Your task to perform on an android device: change your default location settings in chrome Image 0: 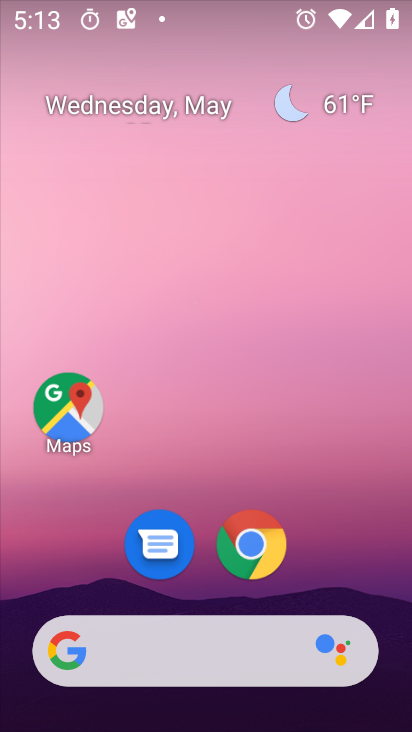
Step 0: click (254, 564)
Your task to perform on an android device: change your default location settings in chrome Image 1: 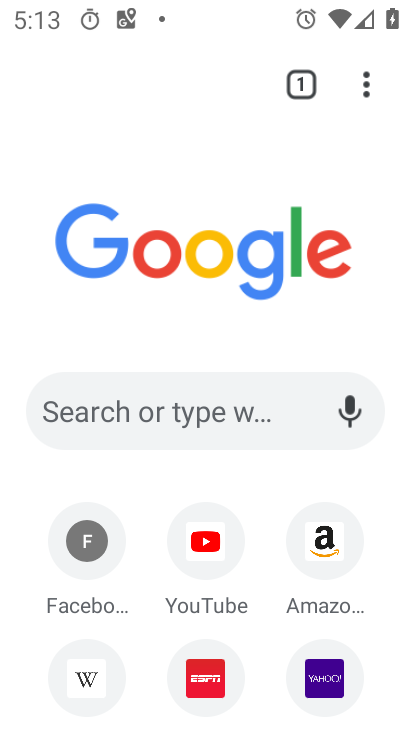
Step 1: click (371, 83)
Your task to perform on an android device: change your default location settings in chrome Image 2: 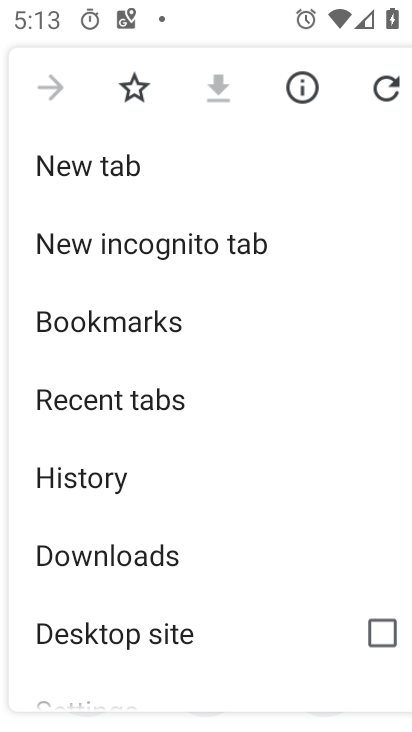
Step 2: drag from (167, 680) to (212, 286)
Your task to perform on an android device: change your default location settings in chrome Image 3: 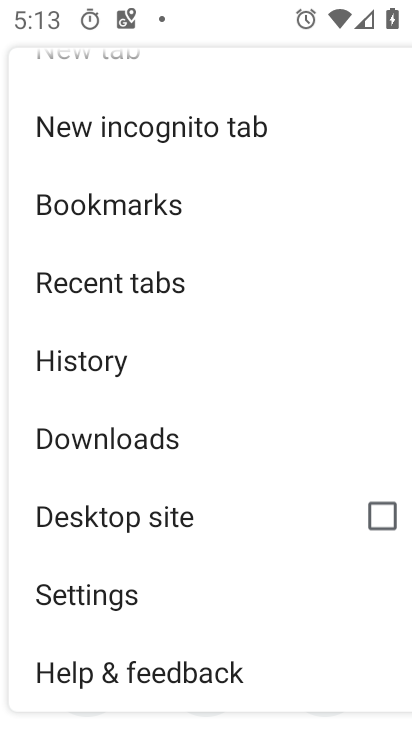
Step 3: click (110, 599)
Your task to perform on an android device: change your default location settings in chrome Image 4: 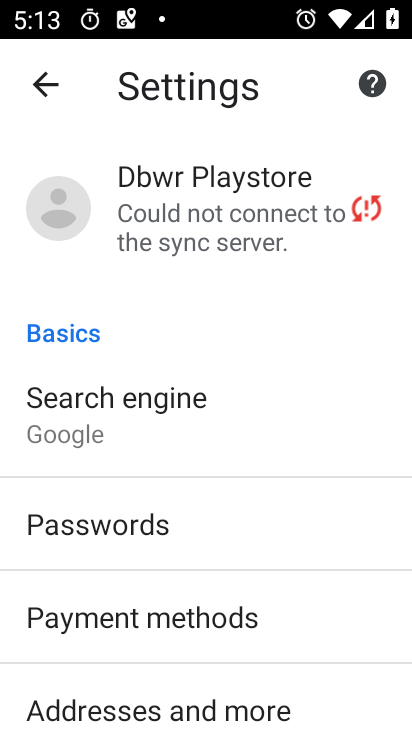
Step 4: drag from (205, 713) to (248, 288)
Your task to perform on an android device: change your default location settings in chrome Image 5: 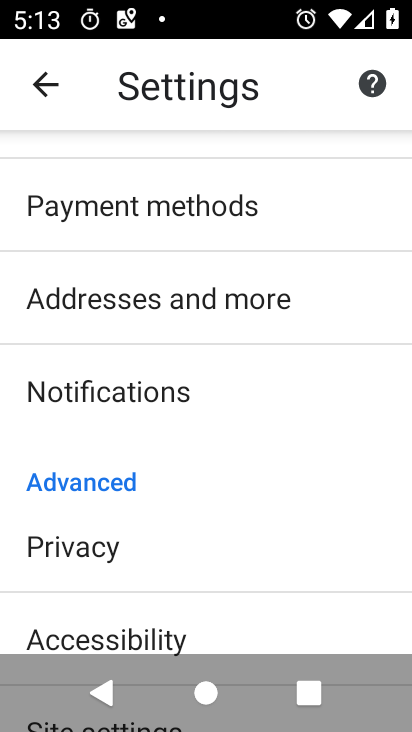
Step 5: drag from (113, 631) to (146, 372)
Your task to perform on an android device: change your default location settings in chrome Image 6: 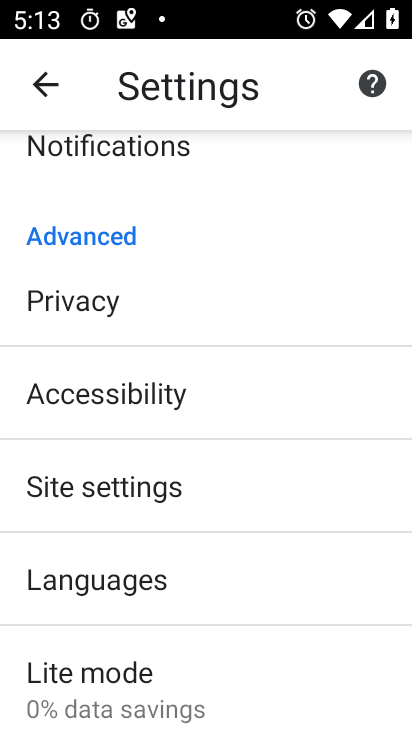
Step 6: click (122, 484)
Your task to perform on an android device: change your default location settings in chrome Image 7: 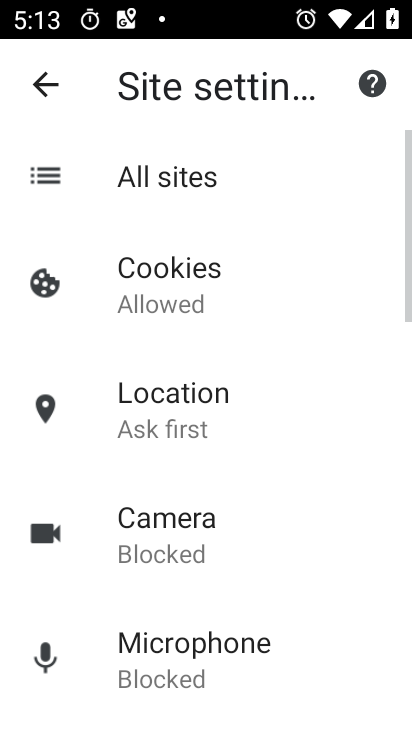
Step 7: click (170, 417)
Your task to perform on an android device: change your default location settings in chrome Image 8: 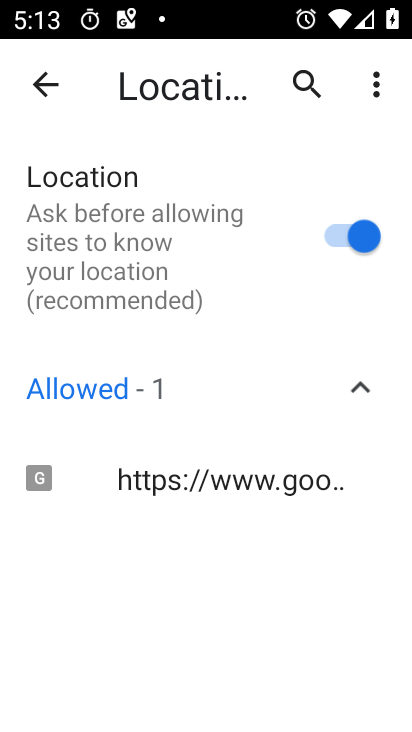
Step 8: click (332, 232)
Your task to perform on an android device: change your default location settings in chrome Image 9: 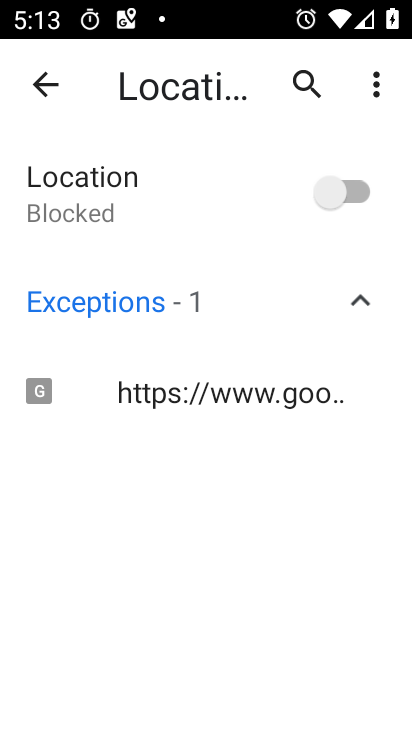
Step 9: task complete